Your task to perform on an android device: open app "TextNow: Call + Text Unlimited" (install if not already installed) Image 0: 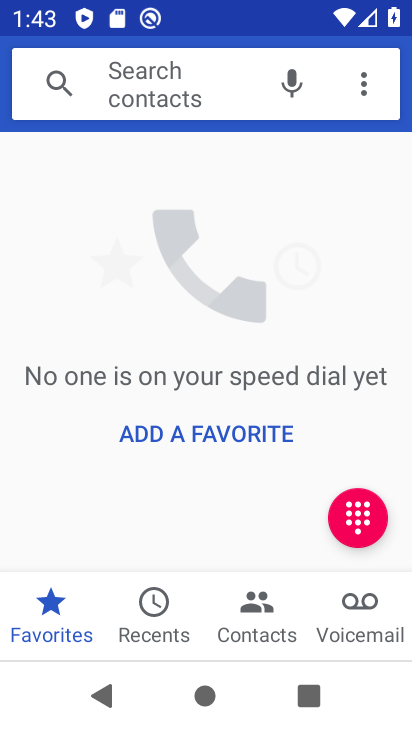
Step 0: press home button
Your task to perform on an android device: open app "TextNow: Call + Text Unlimited" (install if not already installed) Image 1: 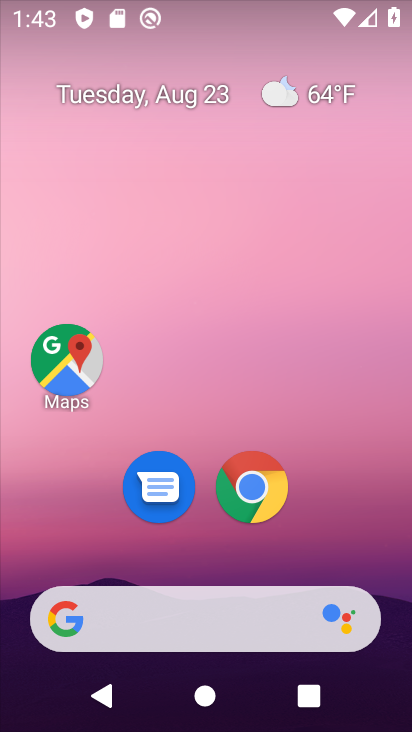
Step 1: drag from (215, 594) to (242, 108)
Your task to perform on an android device: open app "TextNow: Call + Text Unlimited" (install if not already installed) Image 2: 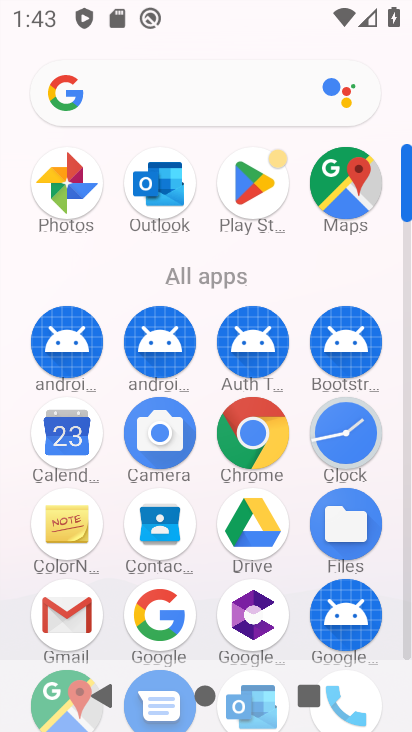
Step 2: click (257, 189)
Your task to perform on an android device: open app "TextNow: Call + Text Unlimited" (install if not already installed) Image 3: 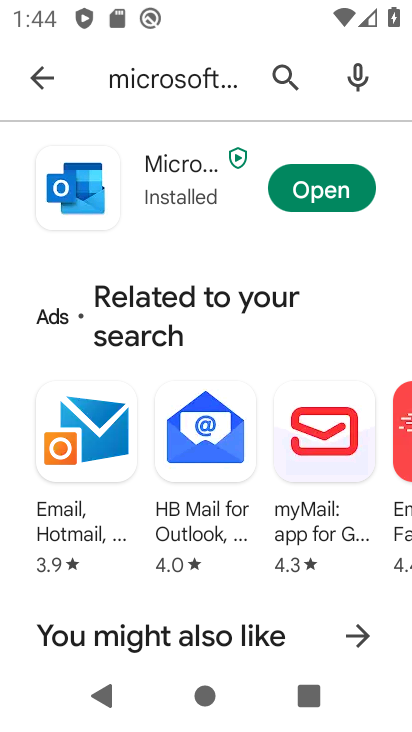
Step 3: click (32, 73)
Your task to perform on an android device: open app "TextNow: Call + Text Unlimited" (install if not already installed) Image 4: 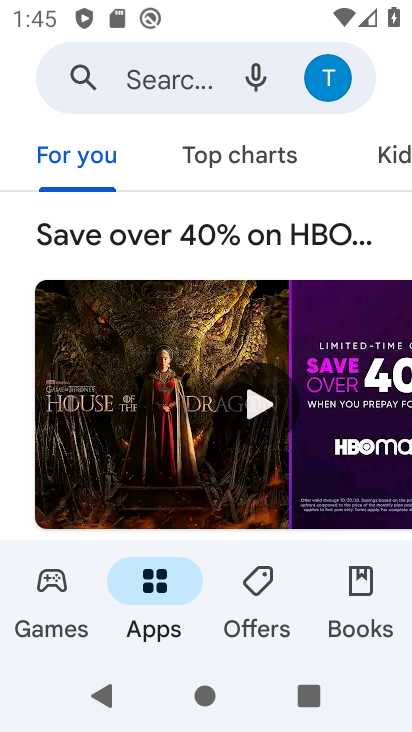
Step 4: click (164, 68)
Your task to perform on an android device: open app "TextNow: Call + Text Unlimited" (install if not already installed) Image 5: 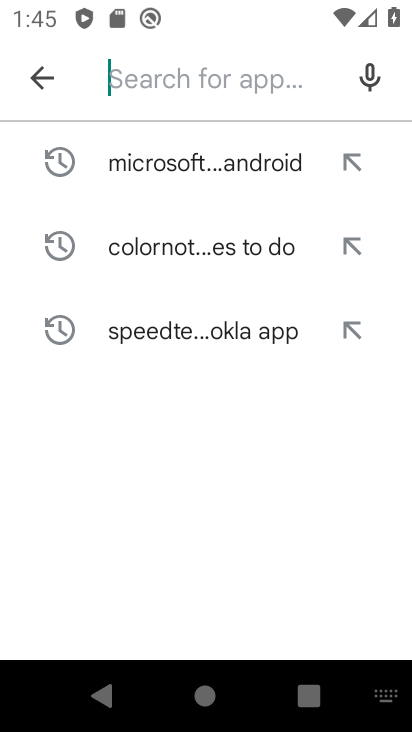
Step 5: type "TextNow: Call "
Your task to perform on an android device: open app "TextNow: Call + Text Unlimited" (install if not already installed) Image 6: 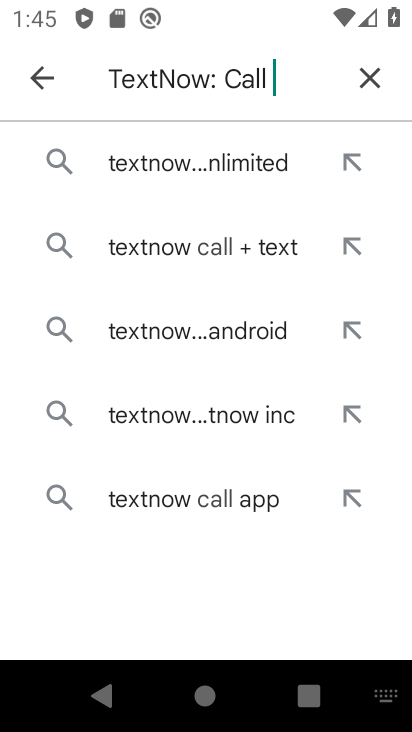
Step 6: click (121, 177)
Your task to perform on an android device: open app "TextNow: Call + Text Unlimited" (install if not already installed) Image 7: 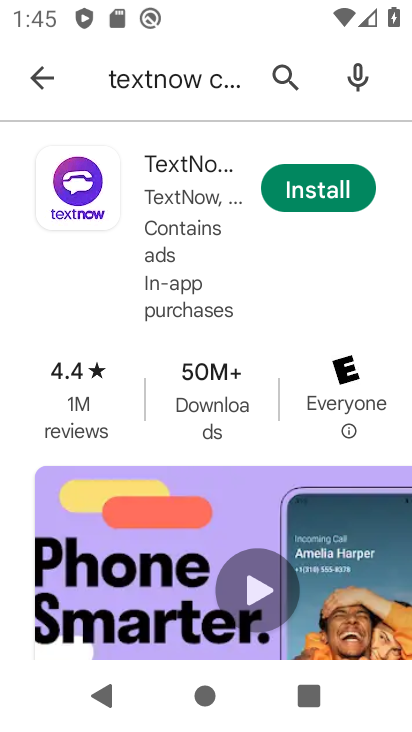
Step 7: click (308, 181)
Your task to perform on an android device: open app "TextNow: Call + Text Unlimited" (install if not already installed) Image 8: 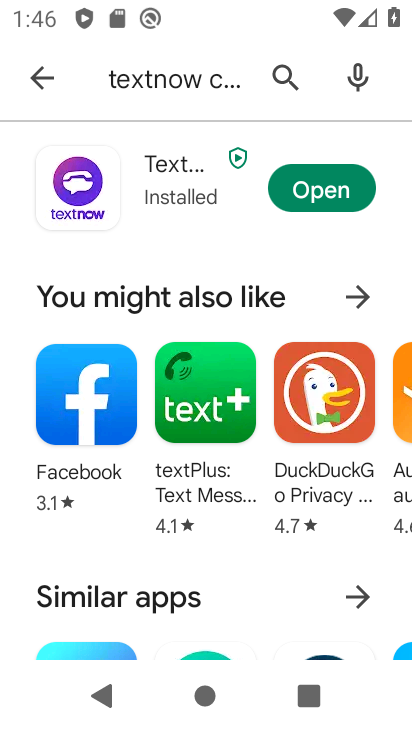
Step 8: click (286, 172)
Your task to perform on an android device: open app "TextNow: Call + Text Unlimited" (install if not already installed) Image 9: 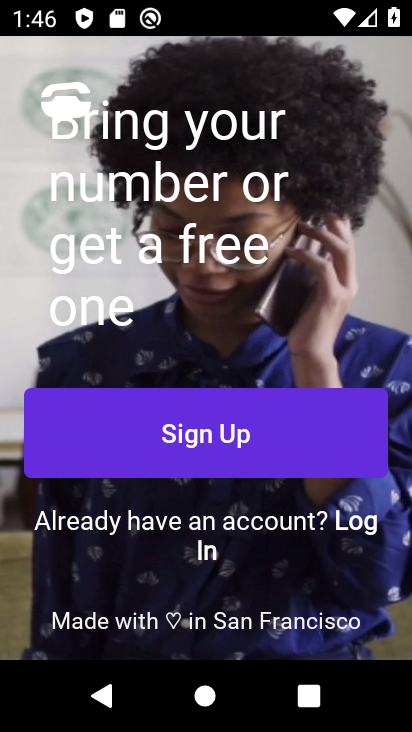
Step 9: task complete